Your task to perform on an android device: Go to notification settings Image 0: 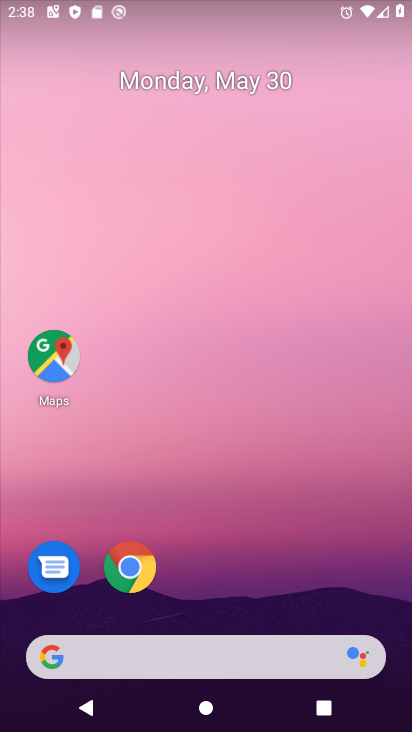
Step 0: drag from (236, 595) to (230, 4)
Your task to perform on an android device: Go to notification settings Image 1: 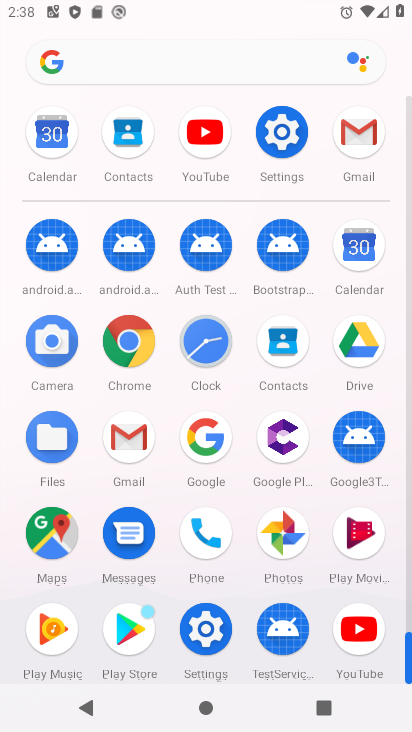
Step 1: click (283, 139)
Your task to perform on an android device: Go to notification settings Image 2: 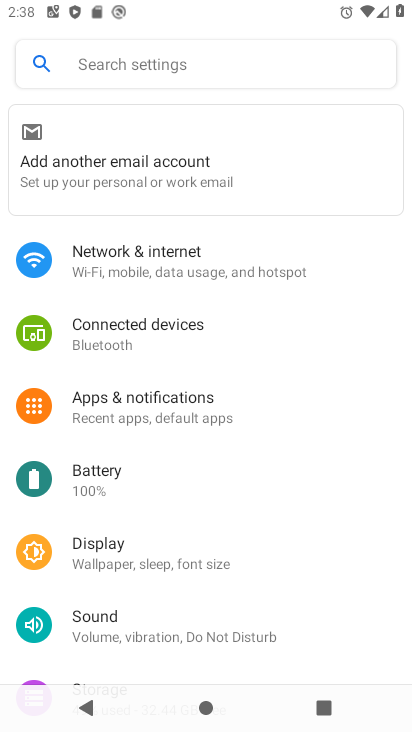
Step 2: click (200, 412)
Your task to perform on an android device: Go to notification settings Image 3: 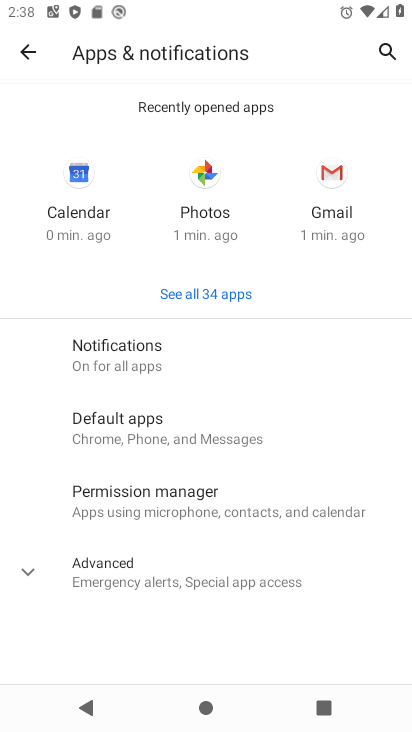
Step 3: click (164, 361)
Your task to perform on an android device: Go to notification settings Image 4: 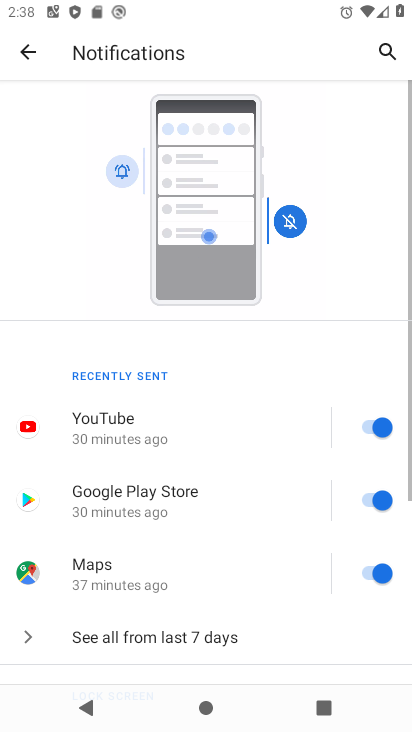
Step 4: task complete